Your task to perform on an android device: read, delete, or share a saved page in the chrome app Image 0: 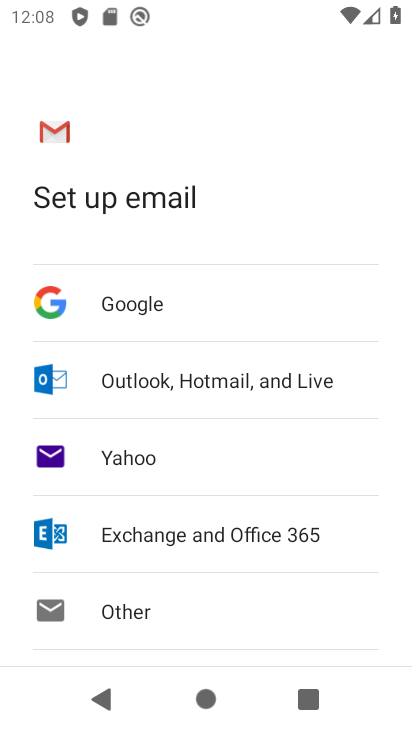
Step 0: press home button
Your task to perform on an android device: read, delete, or share a saved page in the chrome app Image 1: 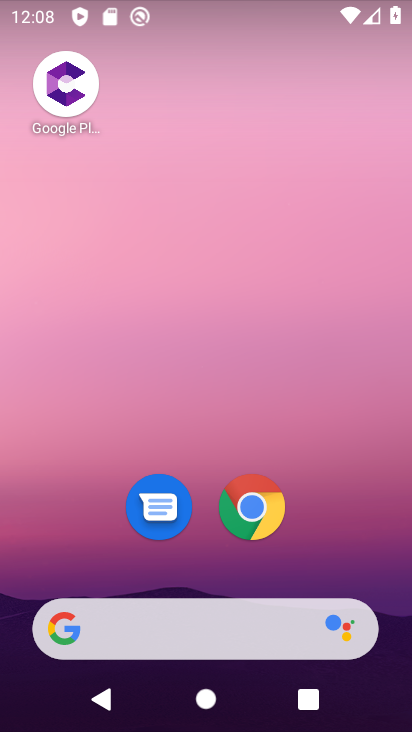
Step 1: click (258, 524)
Your task to perform on an android device: read, delete, or share a saved page in the chrome app Image 2: 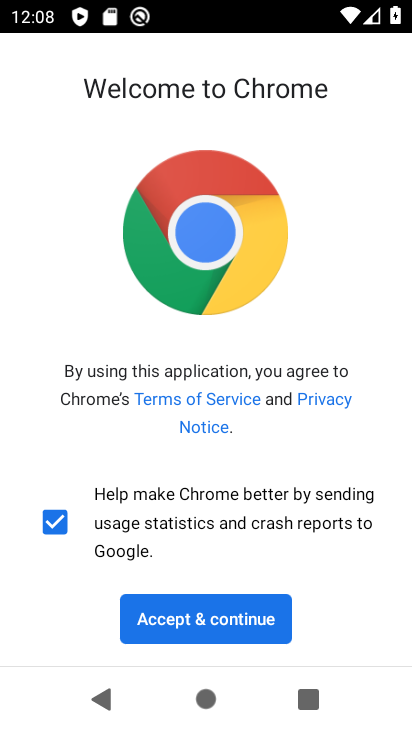
Step 2: click (224, 632)
Your task to perform on an android device: read, delete, or share a saved page in the chrome app Image 3: 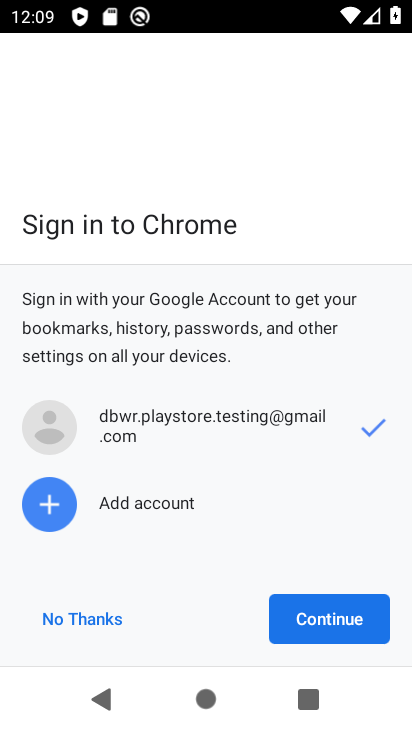
Step 3: click (311, 626)
Your task to perform on an android device: read, delete, or share a saved page in the chrome app Image 4: 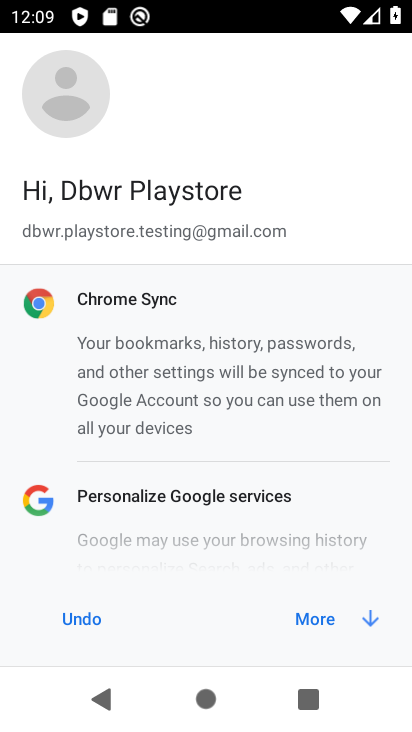
Step 4: click (313, 622)
Your task to perform on an android device: read, delete, or share a saved page in the chrome app Image 5: 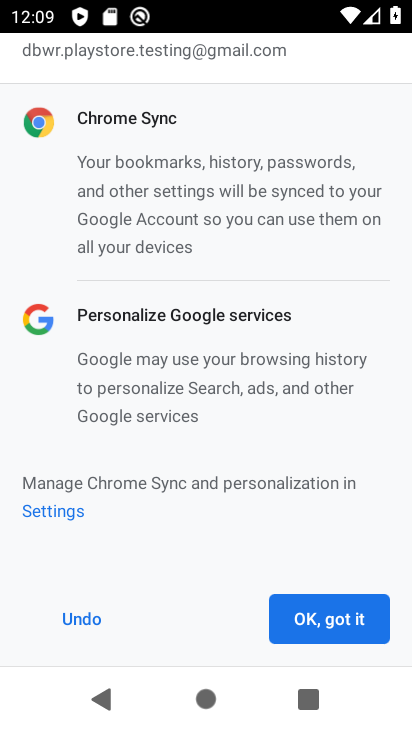
Step 5: click (313, 622)
Your task to perform on an android device: read, delete, or share a saved page in the chrome app Image 6: 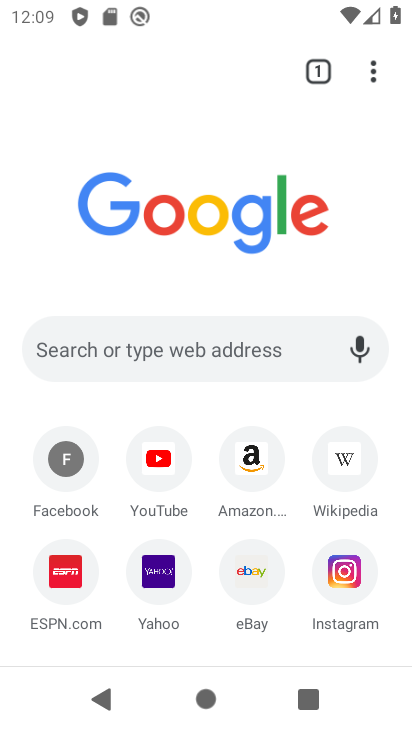
Step 6: click (369, 73)
Your task to perform on an android device: read, delete, or share a saved page in the chrome app Image 7: 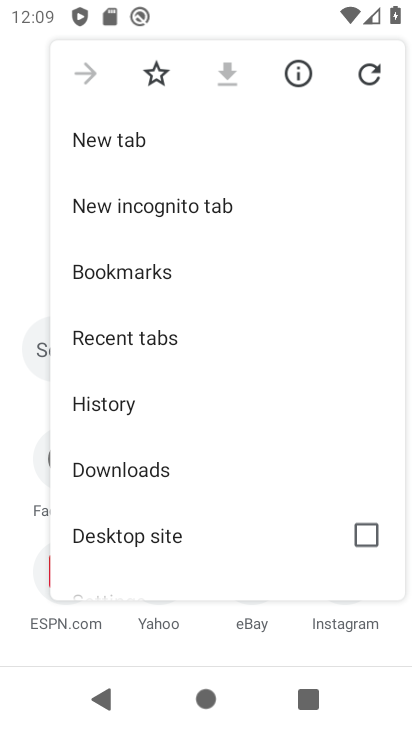
Step 7: drag from (162, 466) to (192, 192)
Your task to perform on an android device: read, delete, or share a saved page in the chrome app Image 8: 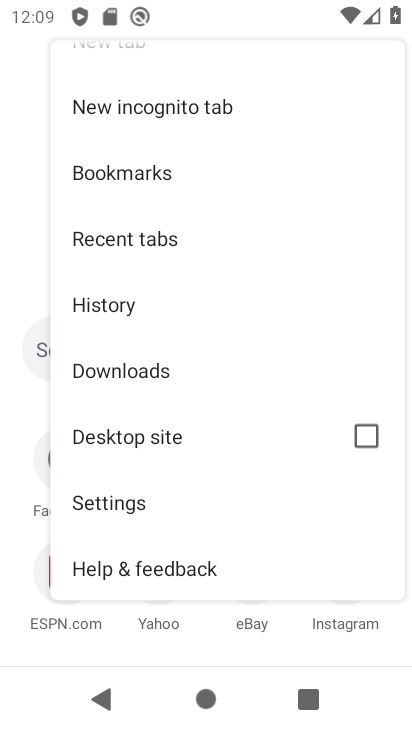
Step 8: click (146, 372)
Your task to perform on an android device: read, delete, or share a saved page in the chrome app Image 9: 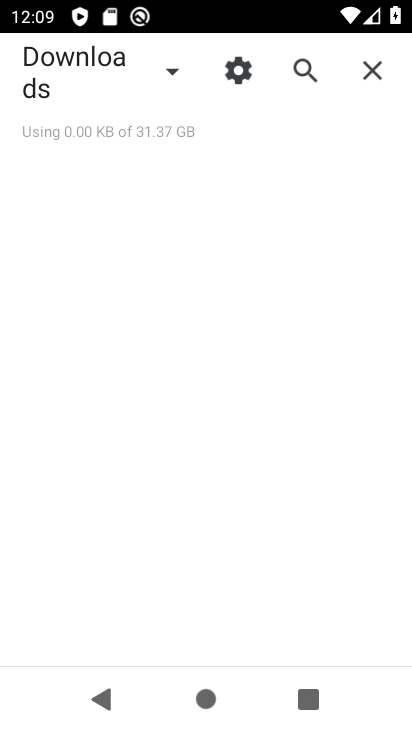
Step 9: task complete